Your task to perform on an android device: open device folders in google photos Image 0: 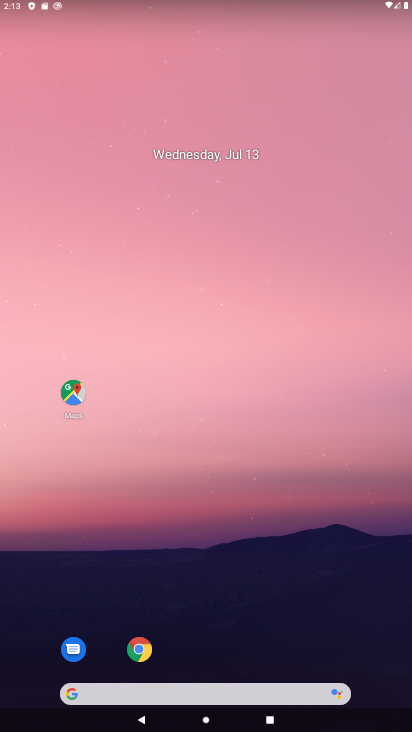
Step 0: drag from (230, 550) to (231, 161)
Your task to perform on an android device: open device folders in google photos Image 1: 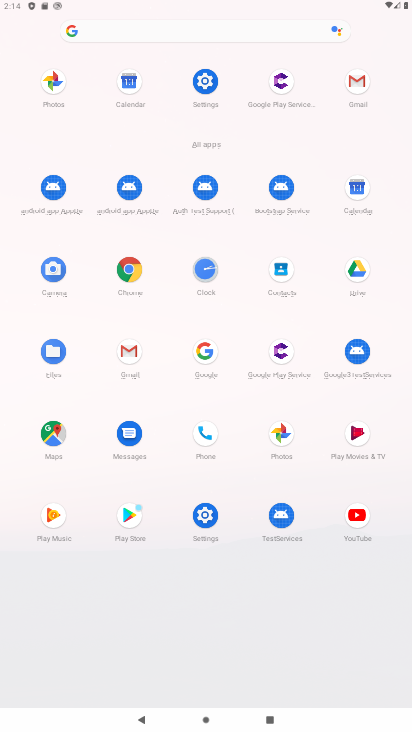
Step 1: click (54, 76)
Your task to perform on an android device: open device folders in google photos Image 2: 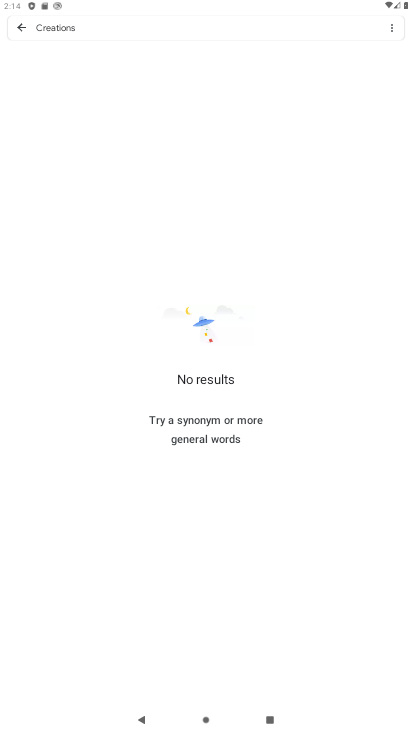
Step 2: click (21, 31)
Your task to perform on an android device: open device folders in google photos Image 3: 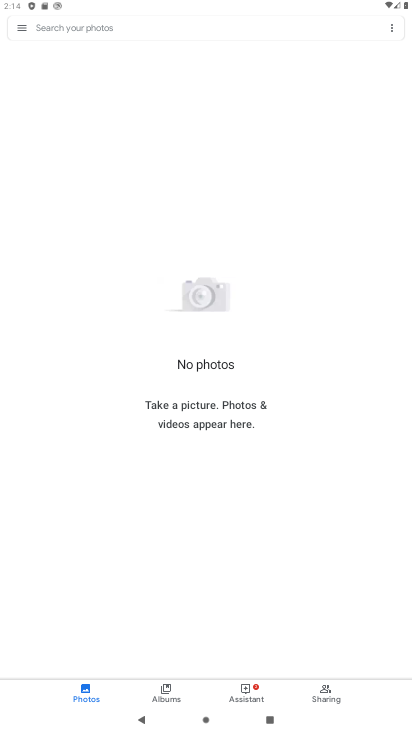
Step 3: click (18, 23)
Your task to perform on an android device: open device folders in google photos Image 4: 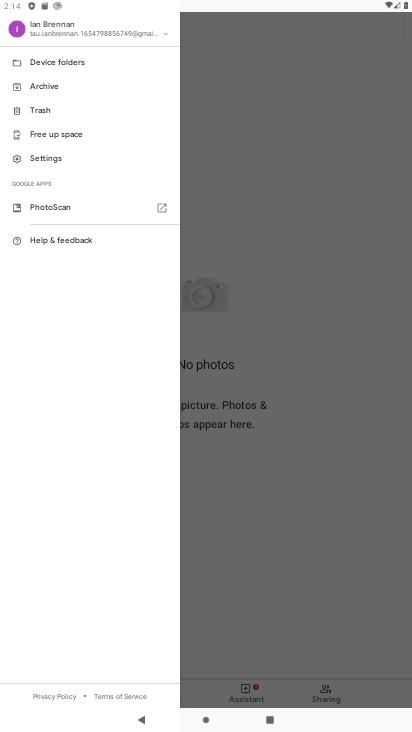
Step 4: click (63, 57)
Your task to perform on an android device: open device folders in google photos Image 5: 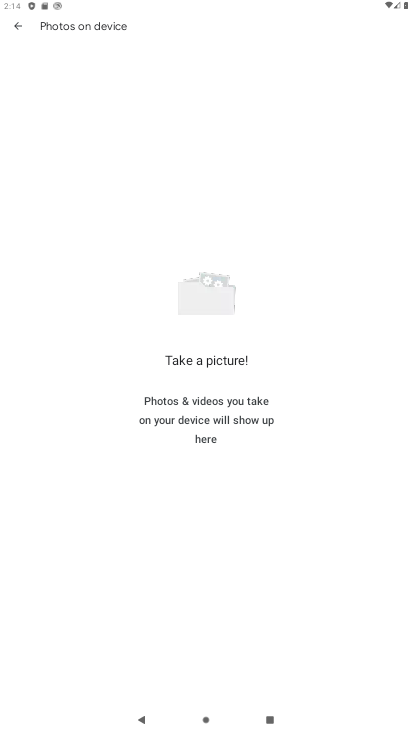
Step 5: task complete